Your task to perform on an android device: Go to battery settings Image 0: 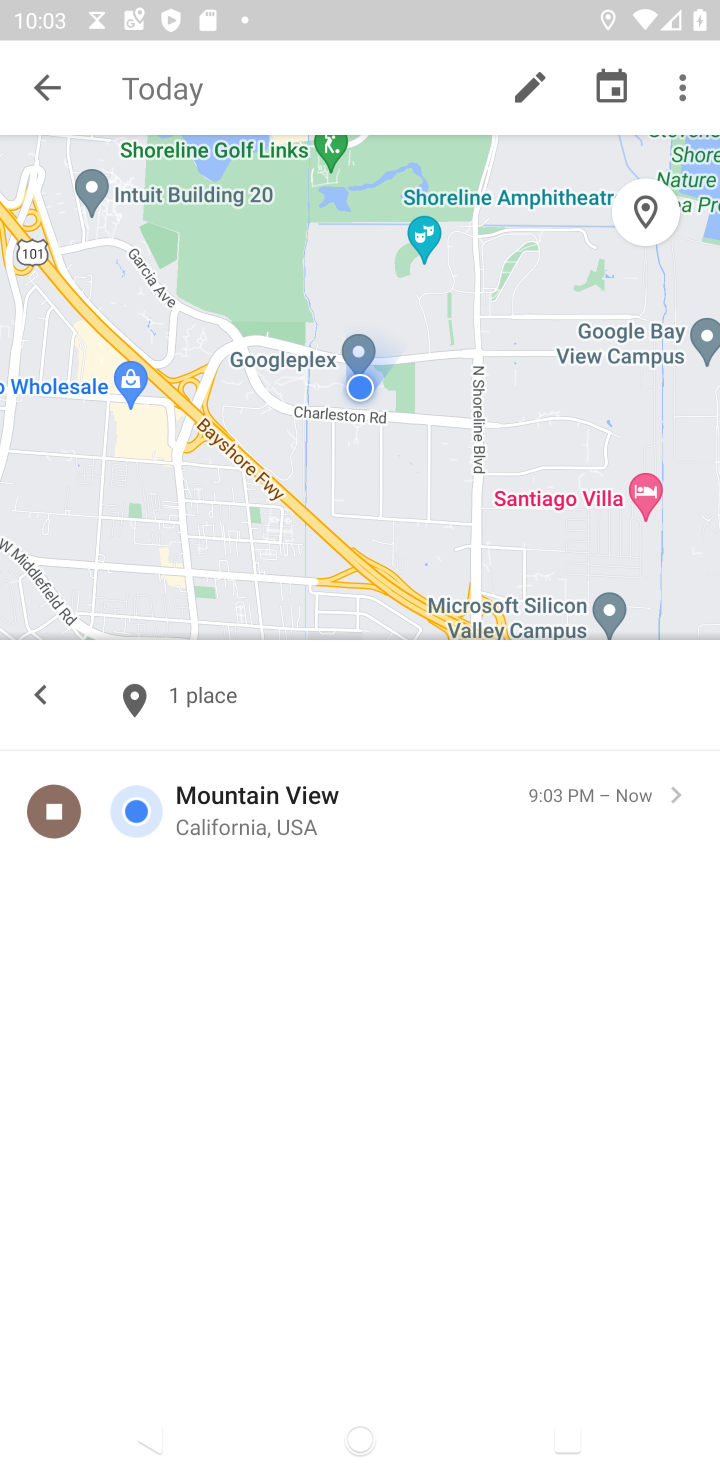
Step 0: press home button
Your task to perform on an android device: Go to battery settings Image 1: 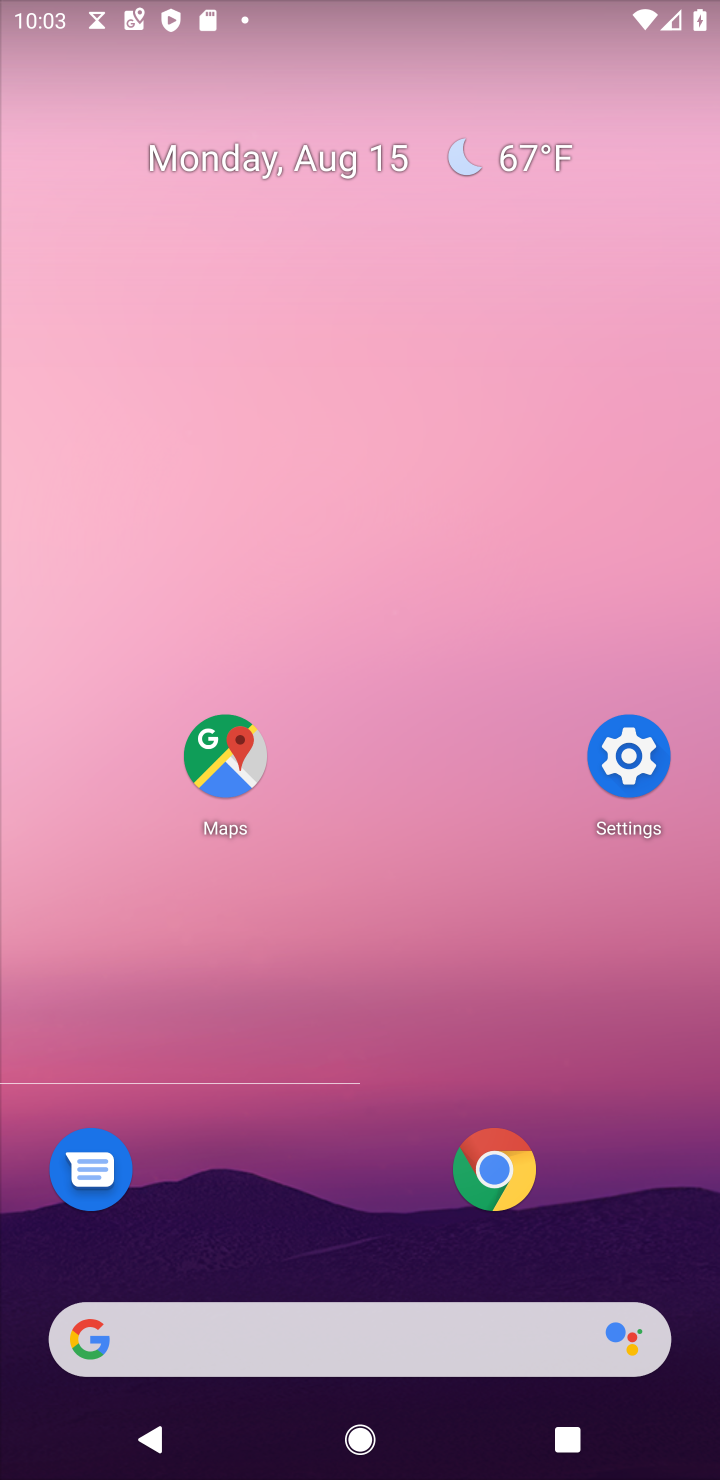
Step 1: drag from (535, 925) to (638, 167)
Your task to perform on an android device: Go to battery settings Image 2: 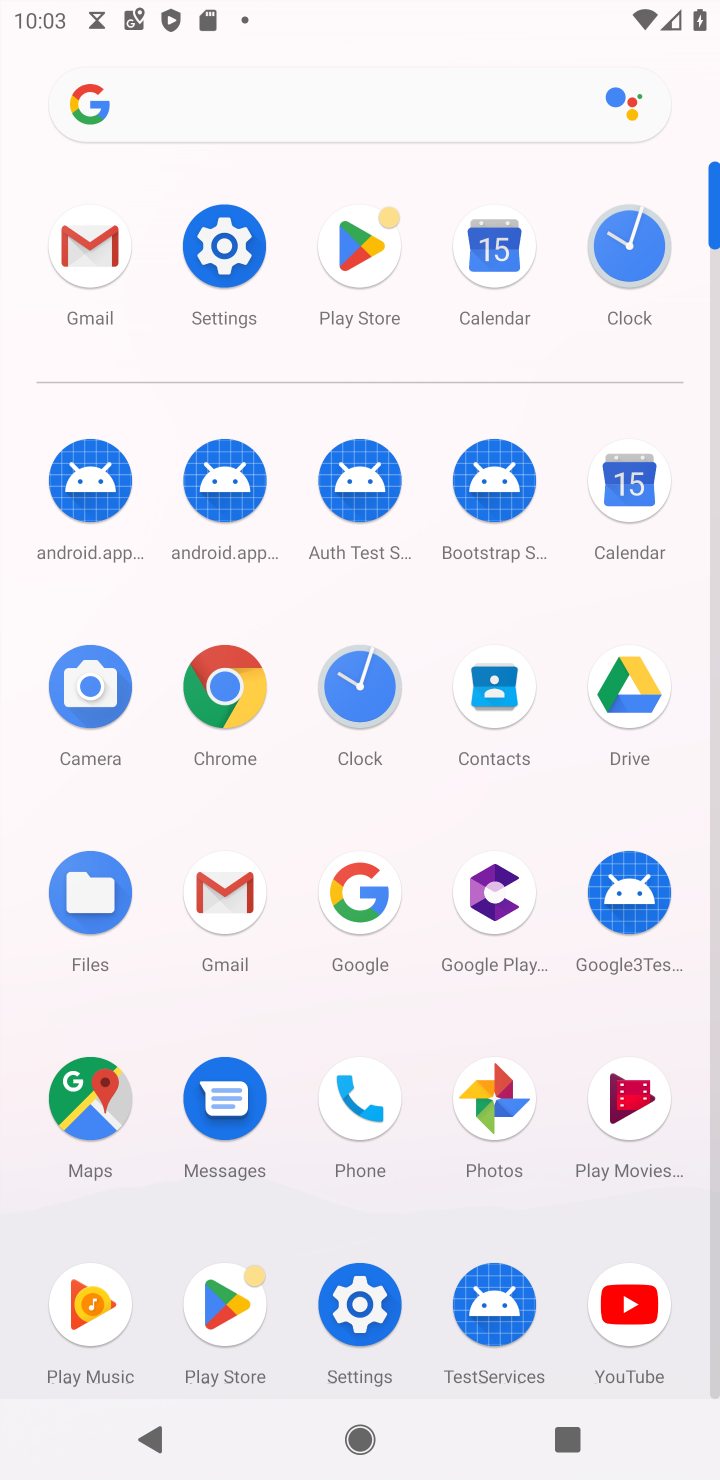
Step 2: click (225, 243)
Your task to perform on an android device: Go to battery settings Image 3: 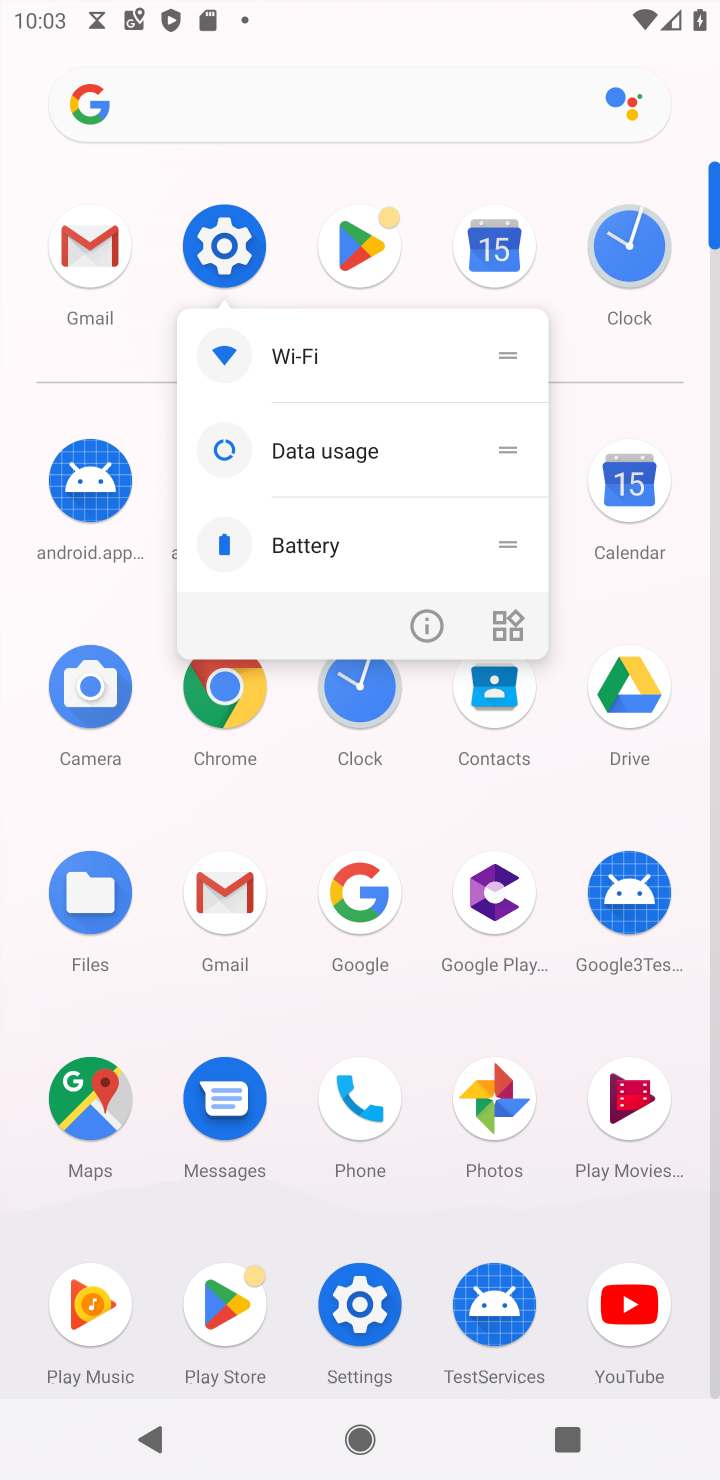
Step 3: click (225, 243)
Your task to perform on an android device: Go to battery settings Image 4: 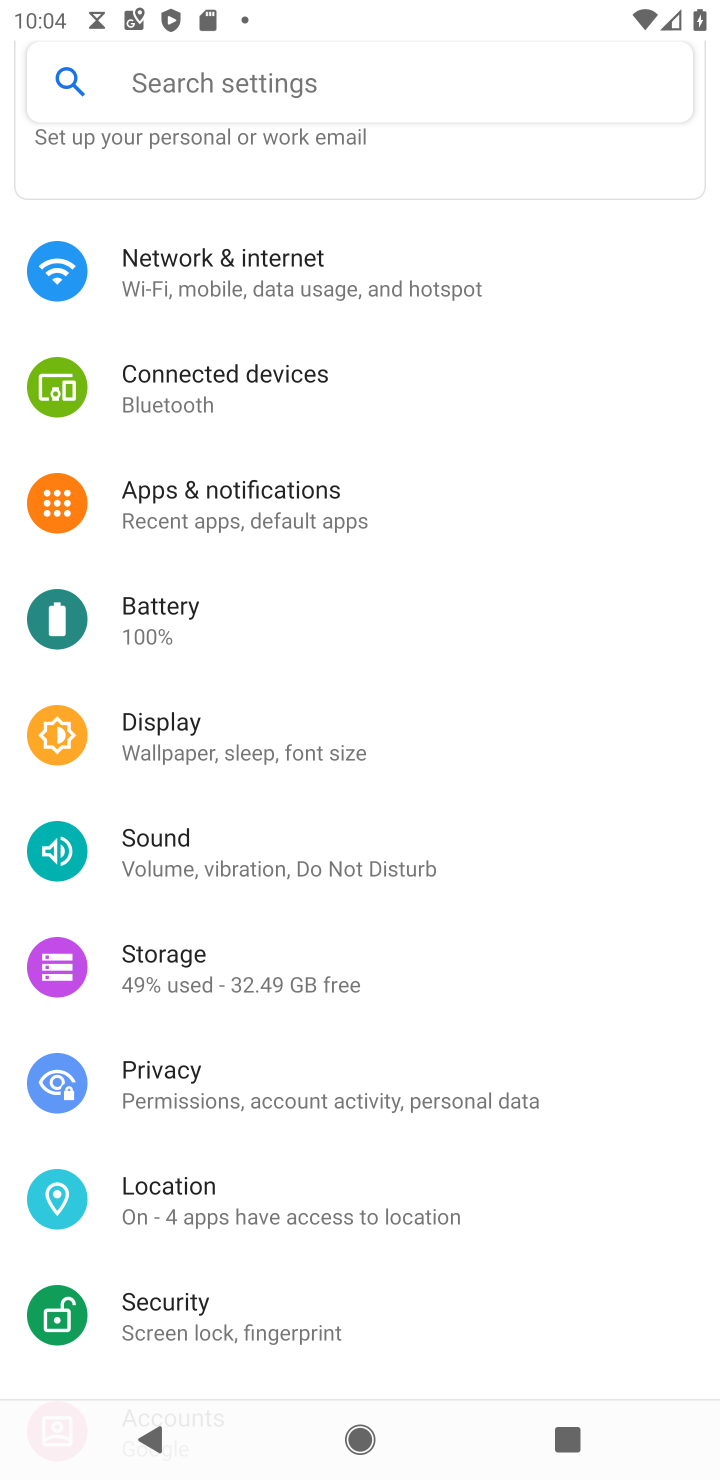
Step 4: click (164, 597)
Your task to perform on an android device: Go to battery settings Image 5: 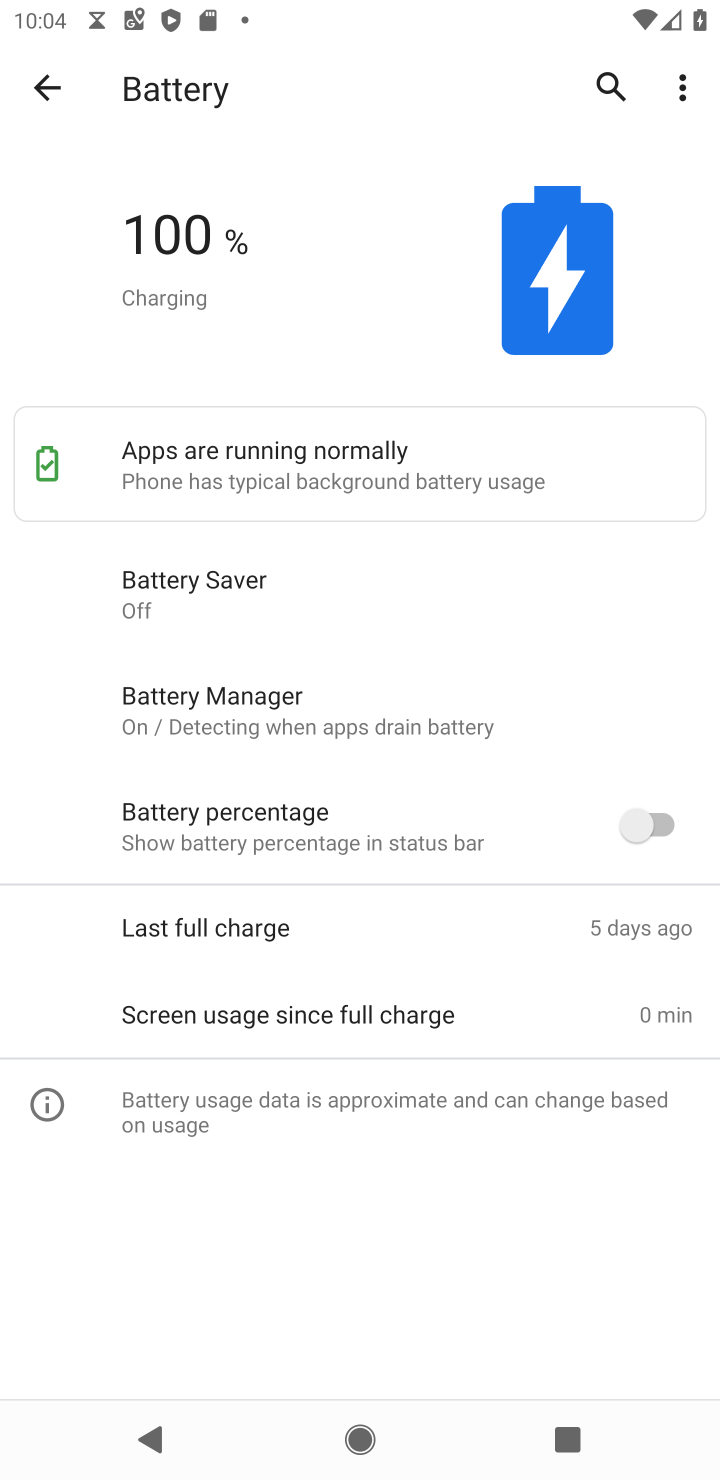
Step 5: task complete